Your task to perform on an android device: Set the phone to "Do not disturb". Image 0: 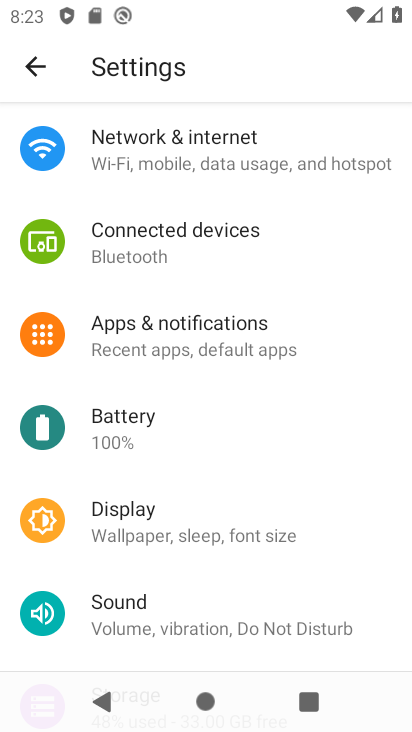
Step 0: click (253, 608)
Your task to perform on an android device: Set the phone to "Do not disturb". Image 1: 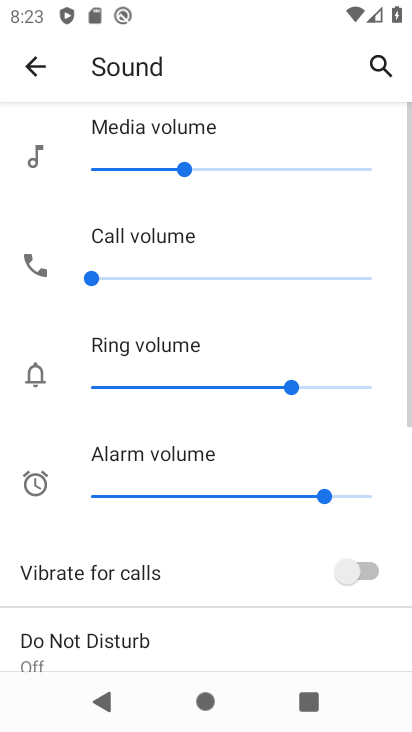
Step 1: drag from (265, 544) to (265, 283)
Your task to perform on an android device: Set the phone to "Do not disturb". Image 2: 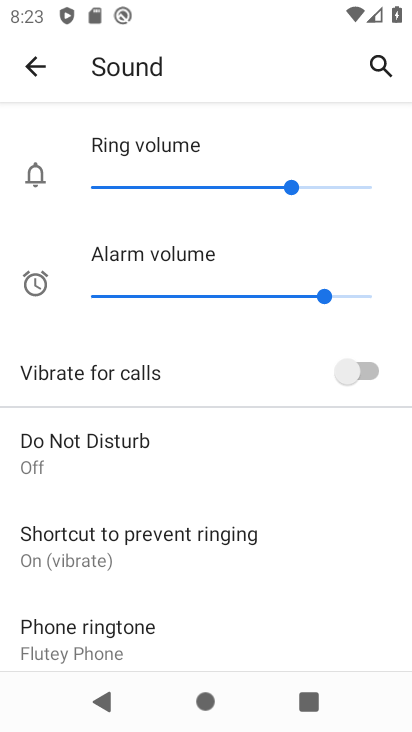
Step 2: click (180, 444)
Your task to perform on an android device: Set the phone to "Do not disturb". Image 3: 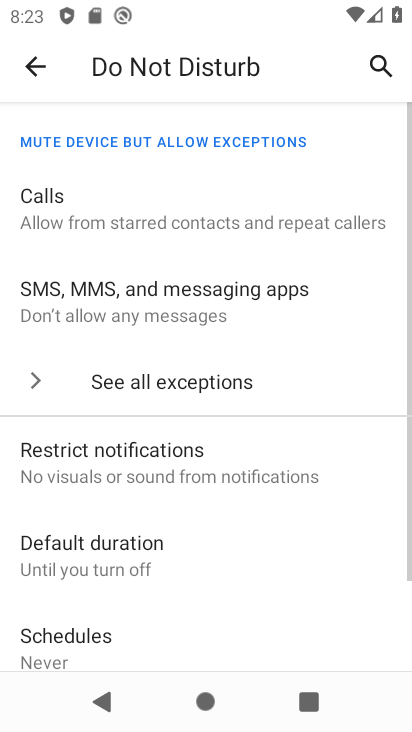
Step 3: drag from (189, 517) to (210, 250)
Your task to perform on an android device: Set the phone to "Do not disturb". Image 4: 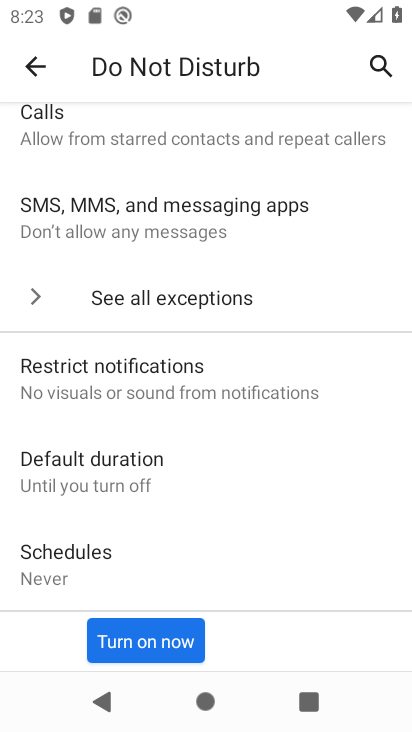
Step 4: click (177, 631)
Your task to perform on an android device: Set the phone to "Do not disturb". Image 5: 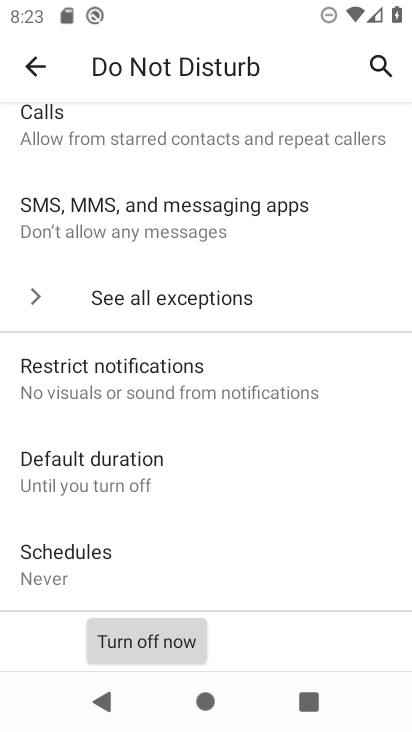
Step 5: click (40, 56)
Your task to perform on an android device: Set the phone to "Do not disturb". Image 6: 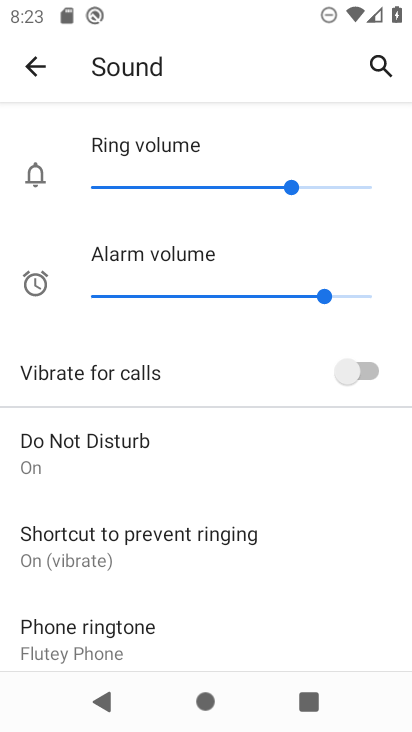
Step 6: task complete